Your task to perform on an android device: Open Wikipedia Image 0: 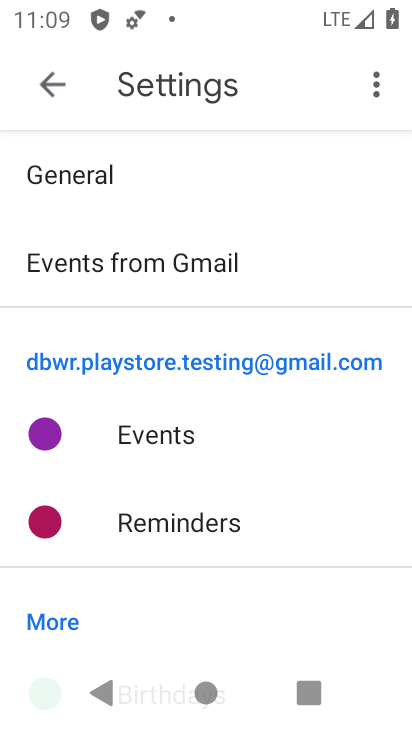
Step 0: press back button
Your task to perform on an android device: Open Wikipedia Image 1: 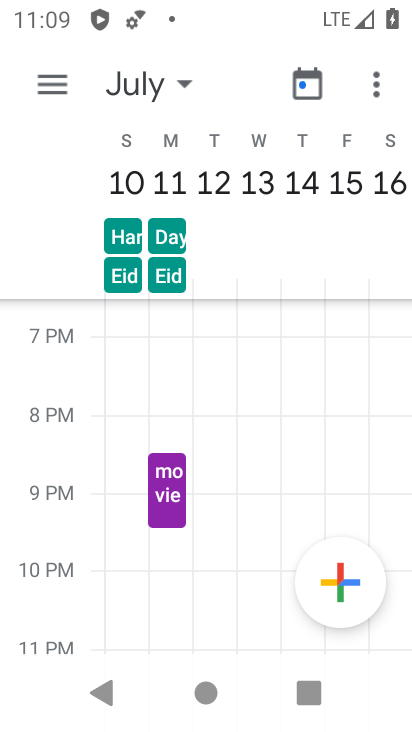
Step 1: press home button
Your task to perform on an android device: Open Wikipedia Image 2: 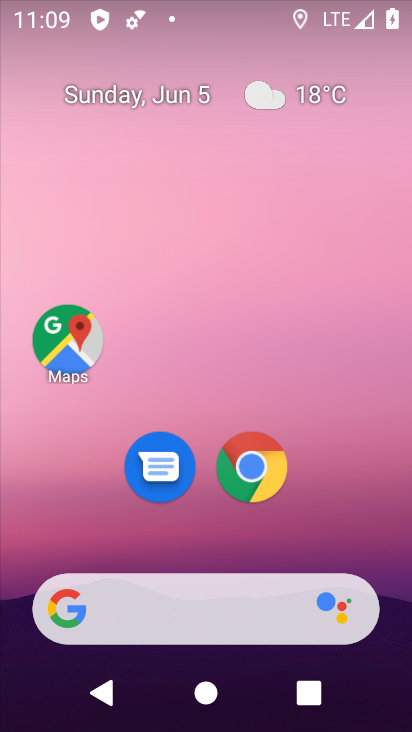
Step 2: click (260, 493)
Your task to perform on an android device: Open Wikipedia Image 3: 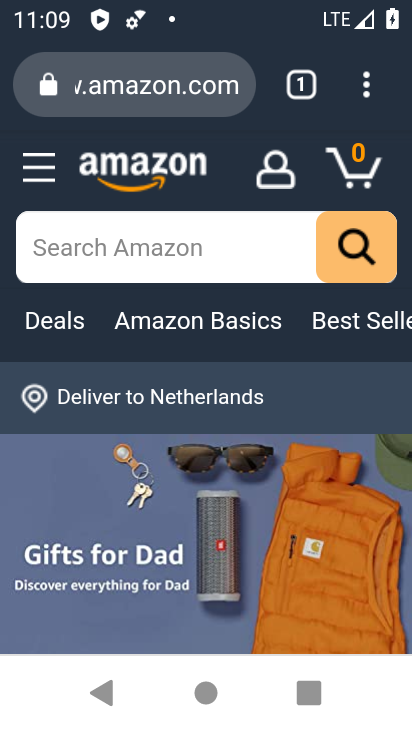
Step 3: click (284, 72)
Your task to perform on an android device: Open Wikipedia Image 4: 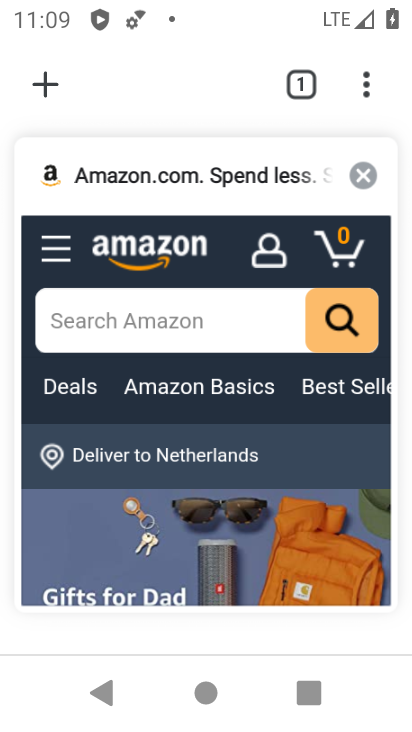
Step 4: click (46, 74)
Your task to perform on an android device: Open Wikipedia Image 5: 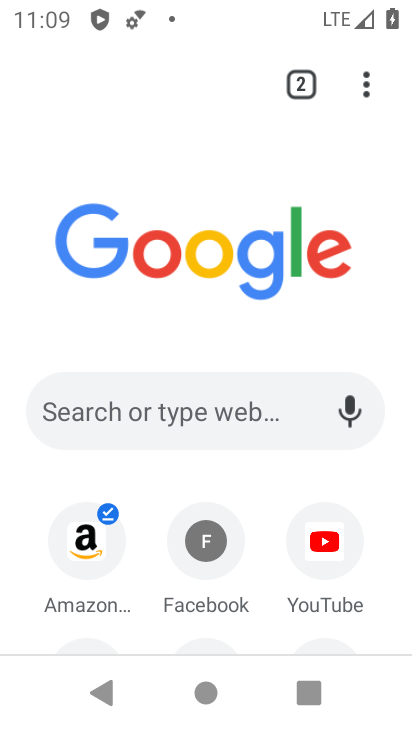
Step 5: drag from (287, 636) to (273, 349)
Your task to perform on an android device: Open Wikipedia Image 6: 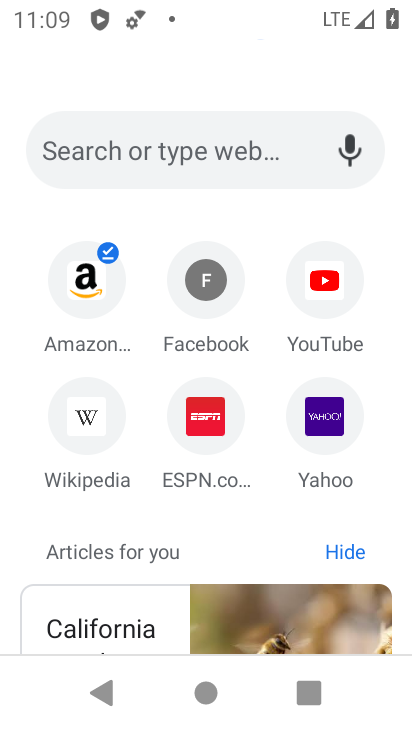
Step 6: click (59, 433)
Your task to perform on an android device: Open Wikipedia Image 7: 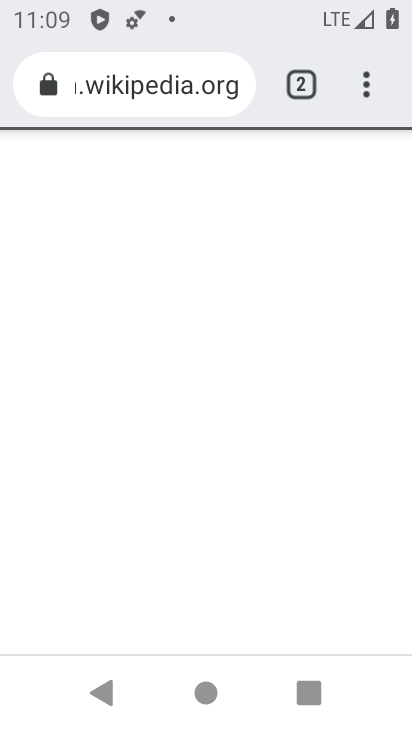
Step 7: task complete